Your task to perform on an android device: clear history in the chrome app Image 0: 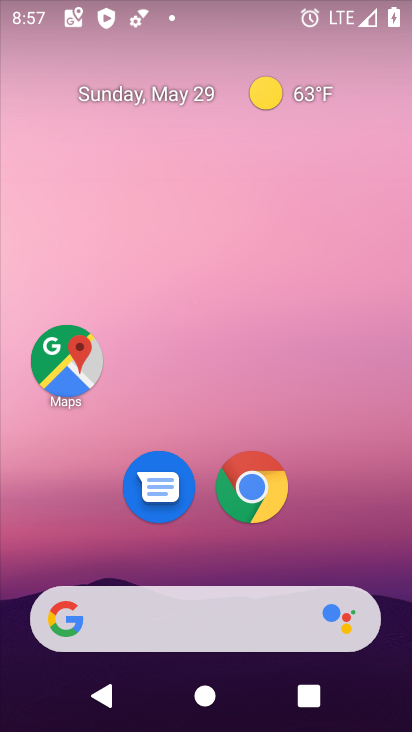
Step 0: drag from (248, 559) to (312, 71)
Your task to perform on an android device: clear history in the chrome app Image 1: 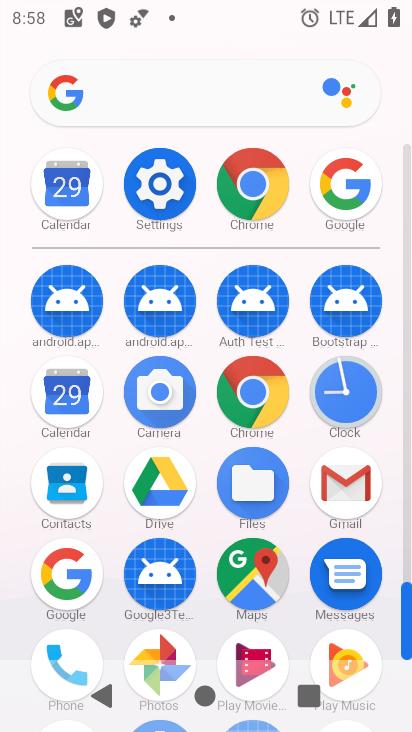
Step 1: click (236, 193)
Your task to perform on an android device: clear history in the chrome app Image 2: 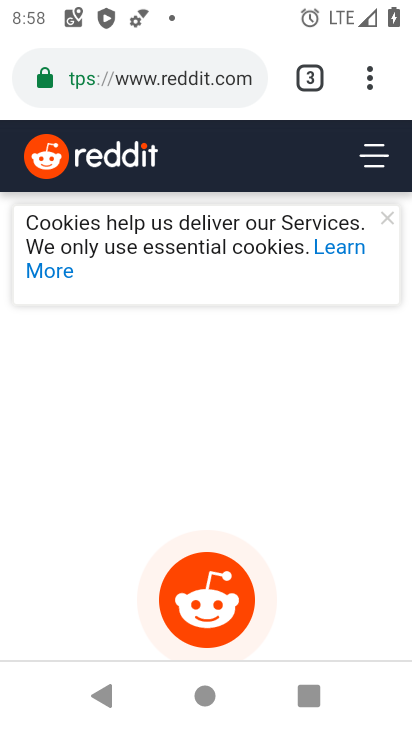
Step 2: click (377, 81)
Your task to perform on an android device: clear history in the chrome app Image 3: 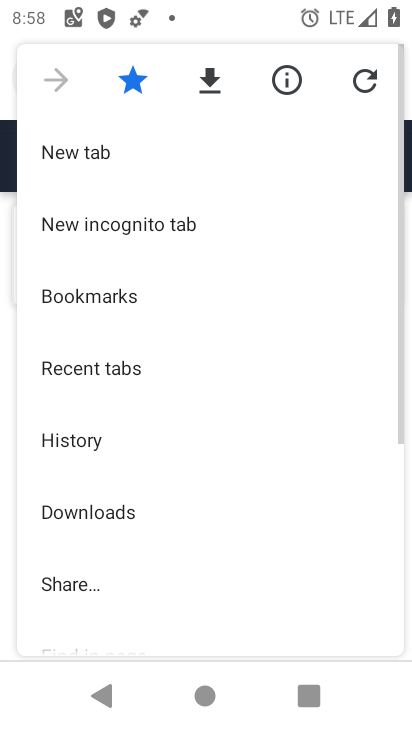
Step 3: click (88, 442)
Your task to perform on an android device: clear history in the chrome app Image 4: 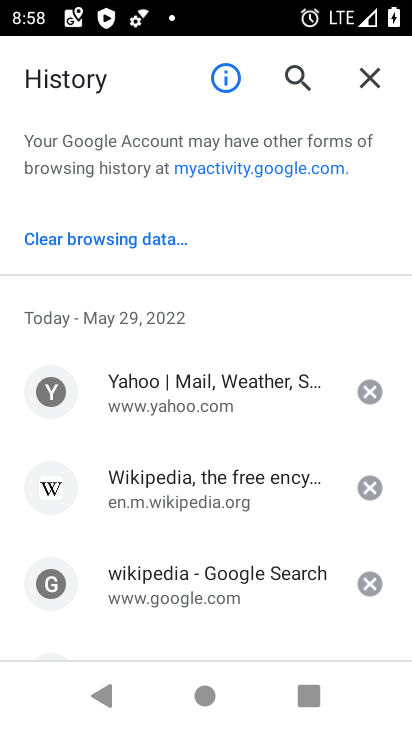
Step 4: click (128, 256)
Your task to perform on an android device: clear history in the chrome app Image 5: 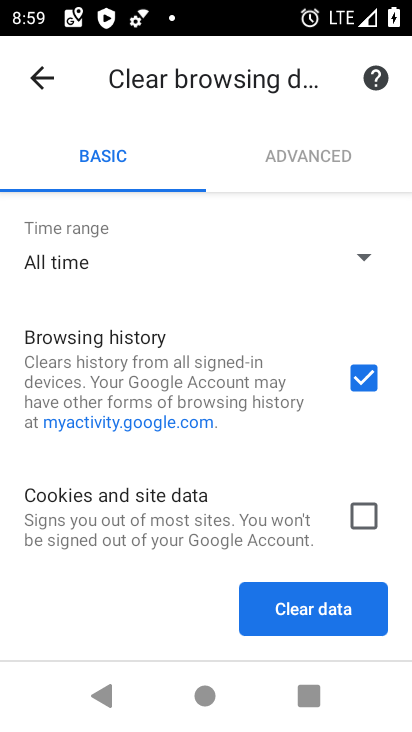
Step 5: click (328, 606)
Your task to perform on an android device: clear history in the chrome app Image 6: 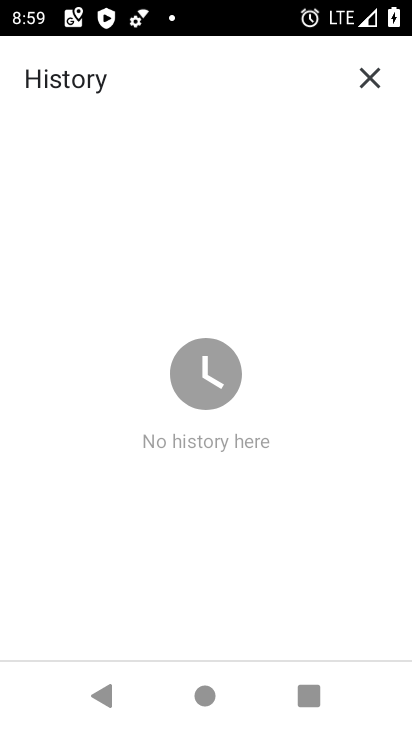
Step 6: task complete